Your task to perform on an android device: Go to calendar. Show me events next week Image 0: 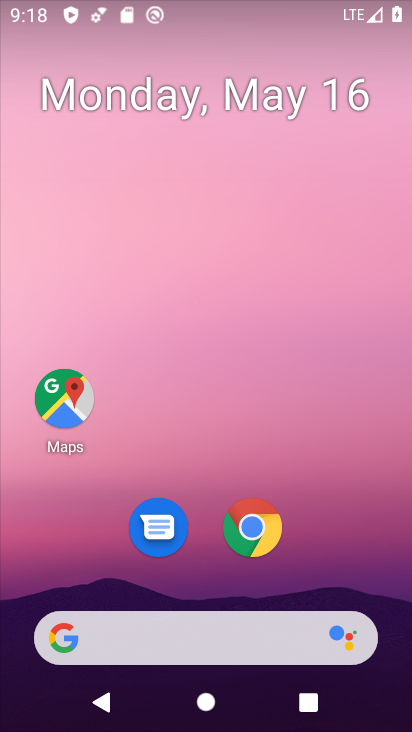
Step 0: drag from (350, 591) to (297, 2)
Your task to perform on an android device: Go to calendar. Show me events next week Image 1: 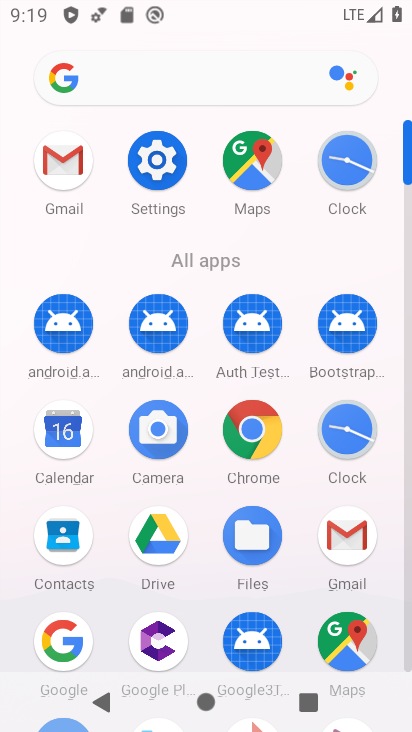
Step 1: click (44, 431)
Your task to perform on an android device: Go to calendar. Show me events next week Image 2: 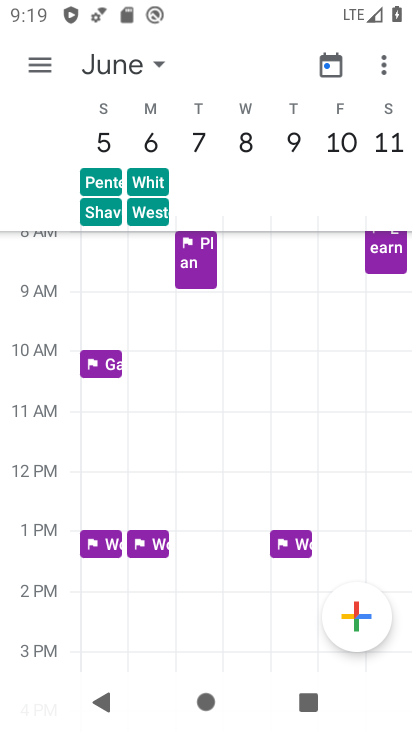
Step 2: click (331, 67)
Your task to perform on an android device: Go to calendar. Show me events next week Image 3: 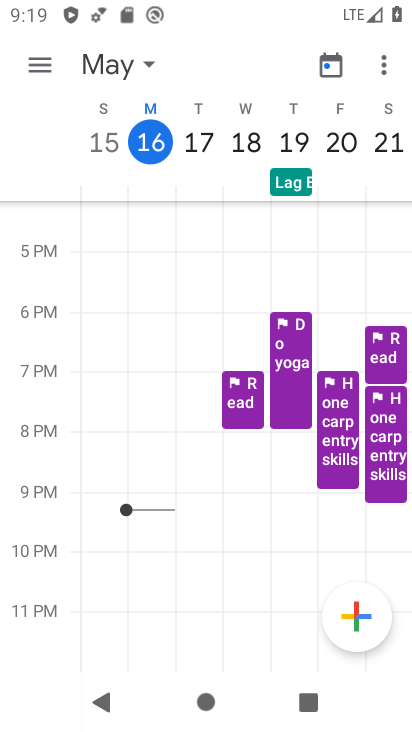
Step 3: click (44, 67)
Your task to perform on an android device: Go to calendar. Show me events next week Image 4: 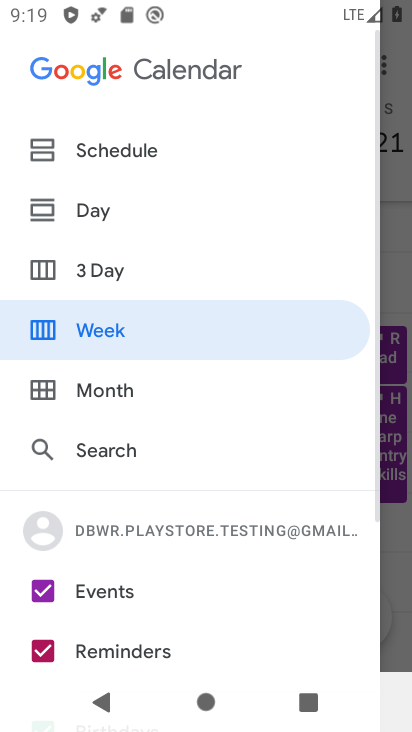
Step 4: drag from (101, 598) to (141, 175)
Your task to perform on an android device: Go to calendar. Show me events next week Image 5: 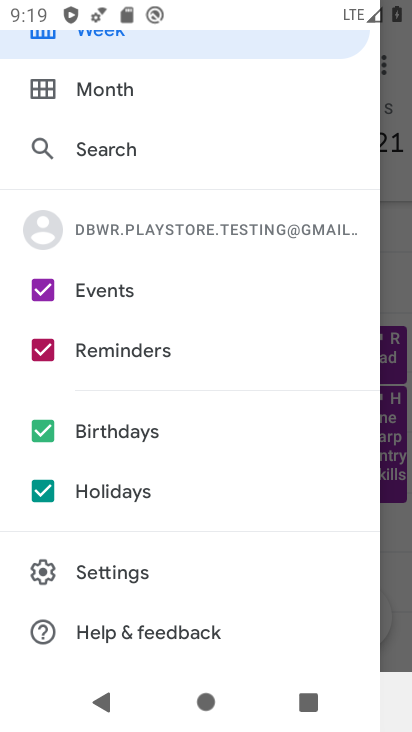
Step 5: click (81, 425)
Your task to perform on an android device: Go to calendar. Show me events next week Image 6: 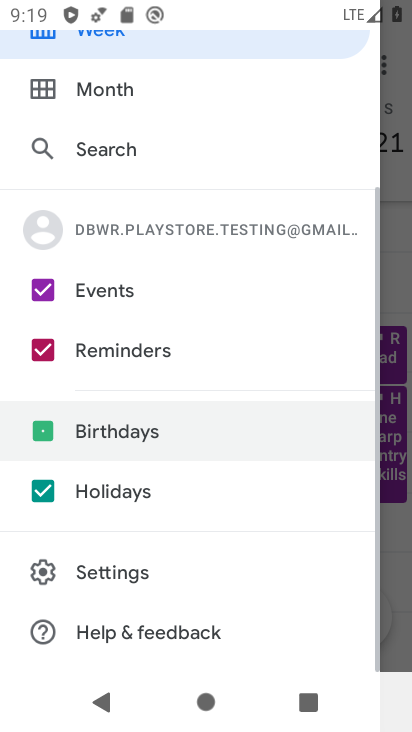
Step 6: click (95, 356)
Your task to perform on an android device: Go to calendar. Show me events next week Image 7: 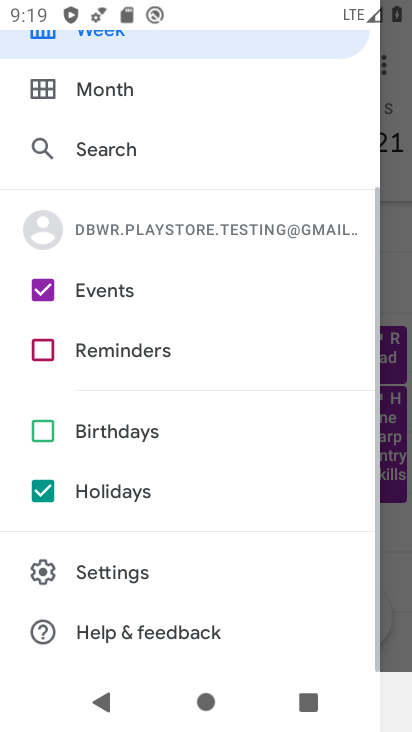
Step 7: click (82, 510)
Your task to perform on an android device: Go to calendar. Show me events next week Image 8: 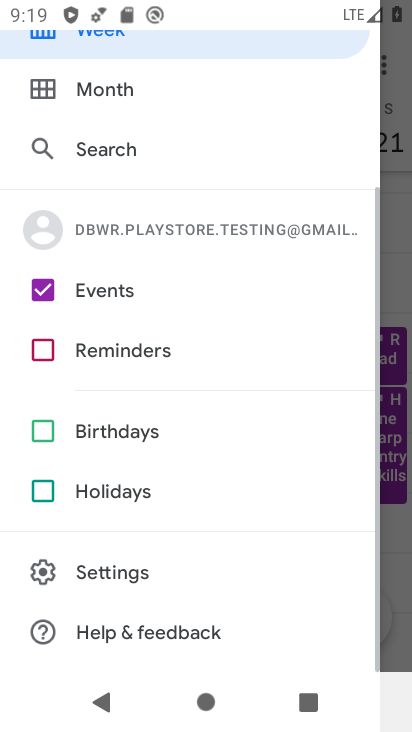
Step 8: drag from (258, 225) to (251, 536)
Your task to perform on an android device: Go to calendar. Show me events next week Image 9: 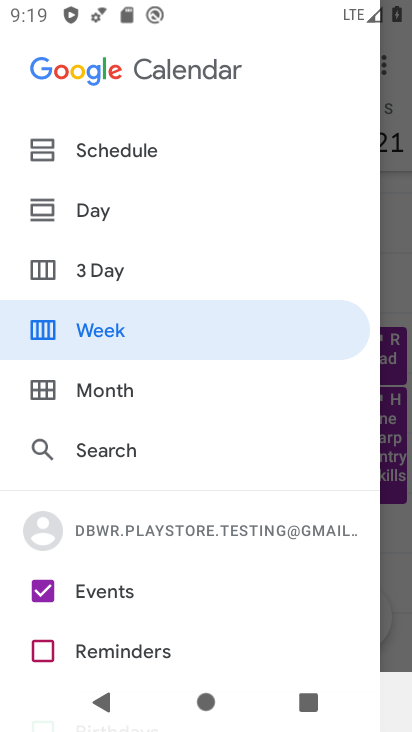
Step 9: click (103, 319)
Your task to perform on an android device: Go to calendar. Show me events next week Image 10: 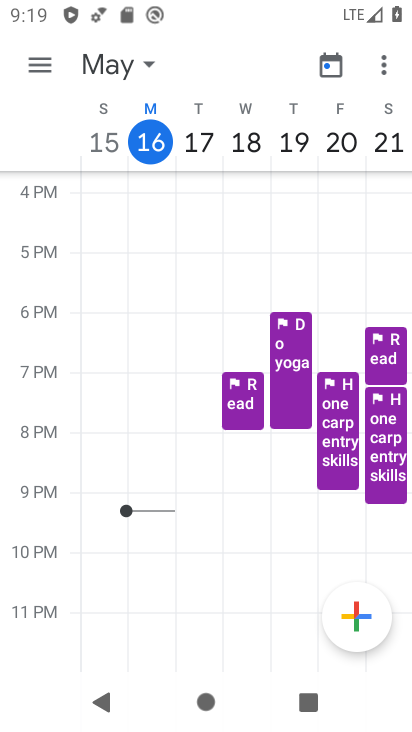
Step 10: task complete